Your task to perform on an android device: Do I have any events today? Image 0: 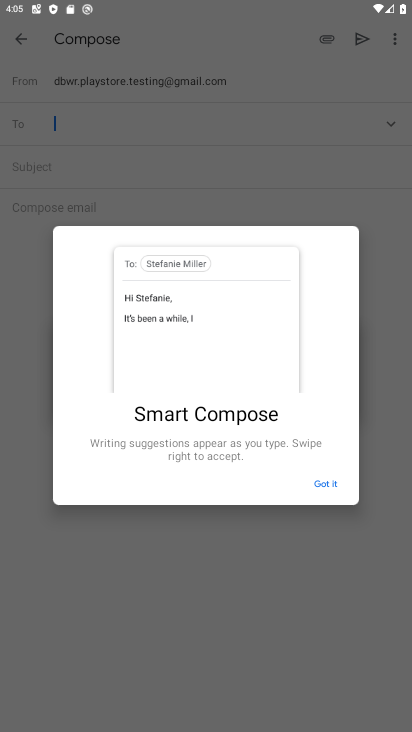
Step 0: press home button
Your task to perform on an android device: Do I have any events today? Image 1: 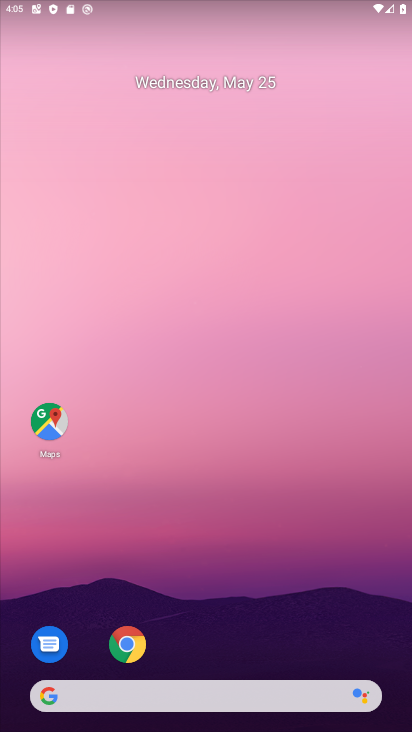
Step 1: drag from (256, 668) to (270, 10)
Your task to perform on an android device: Do I have any events today? Image 2: 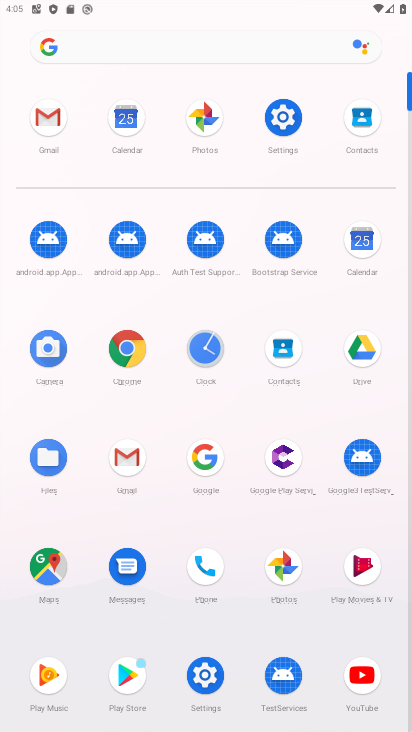
Step 2: click (125, 116)
Your task to perform on an android device: Do I have any events today? Image 3: 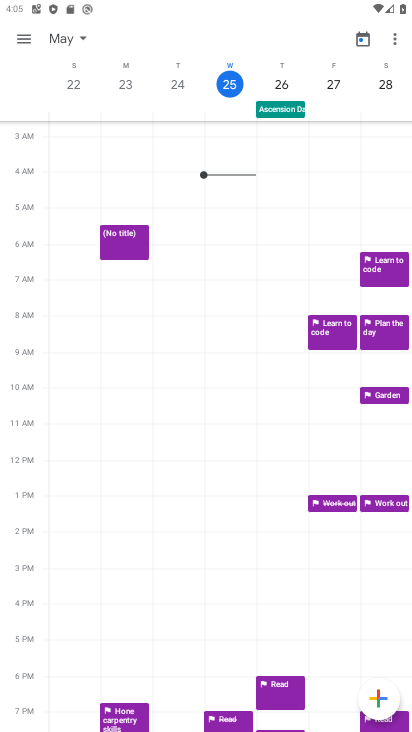
Step 3: click (21, 37)
Your task to perform on an android device: Do I have any events today? Image 4: 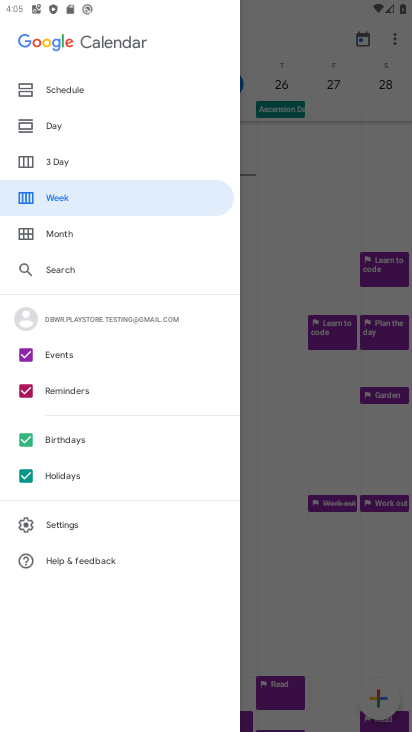
Step 4: click (24, 474)
Your task to perform on an android device: Do I have any events today? Image 5: 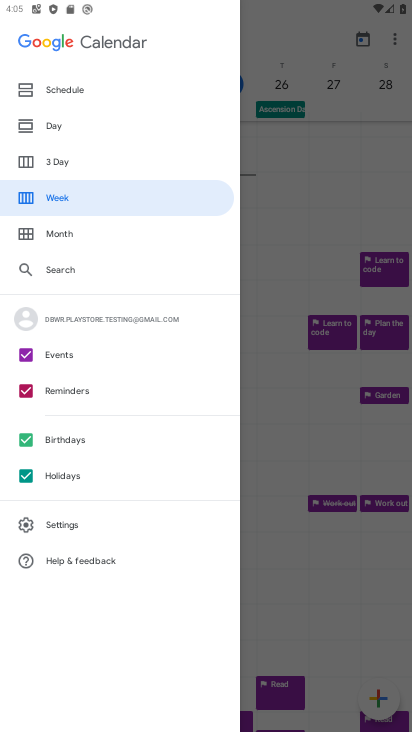
Step 5: click (21, 438)
Your task to perform on an android device: Do I have any events today? Image 6: 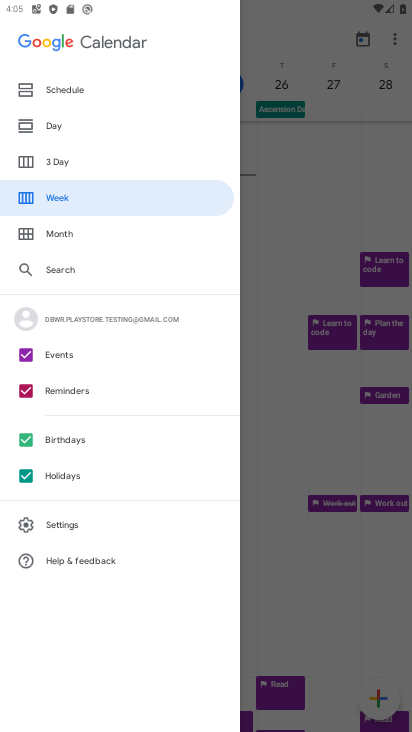
Step 6: click (27, 390)
Your task to perform on an android device: Do I have any events today? Image 7: 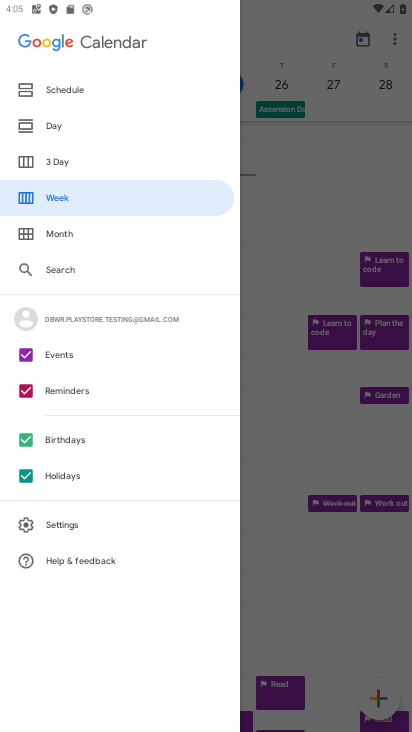
Step 7: click (22, 129)
Your task to perform on an android device: Do I have any events today? Image 8: 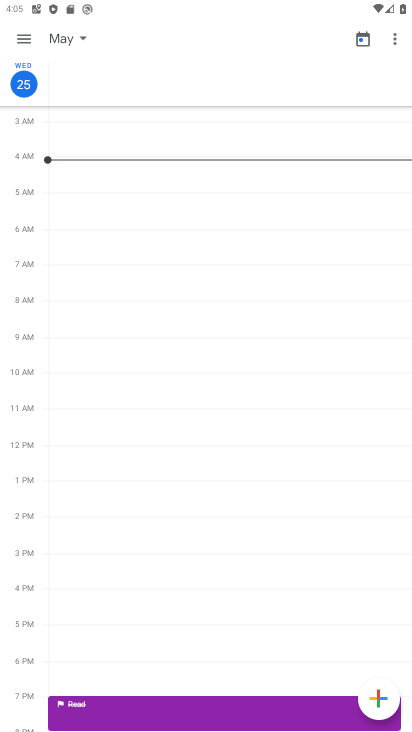
Step 8: task complete